Your task to perform on an android device: Open location settings Image 0: 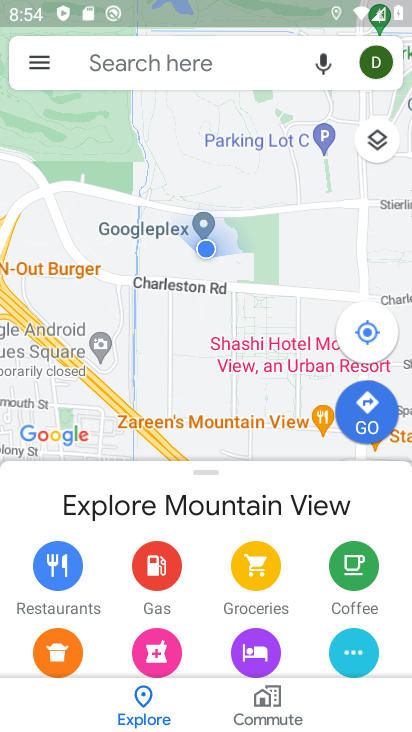
Step 0: press home button
Your task to perform on an android device: Open location settings Image 1: 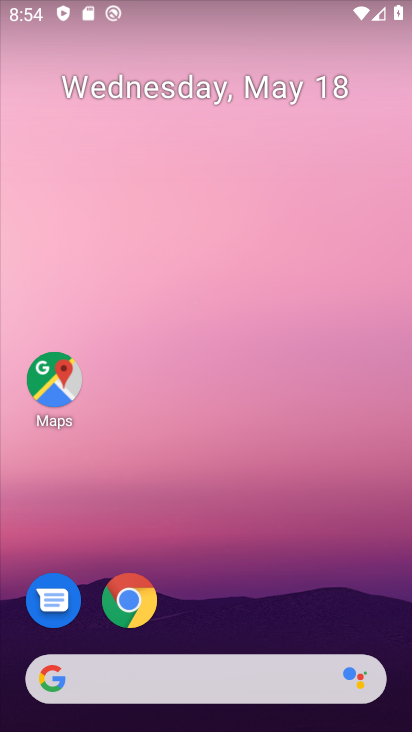
Step 1: drag from (35, 554) to (272, 106)
Your task to perform on an android device: Open location settings Image 2: 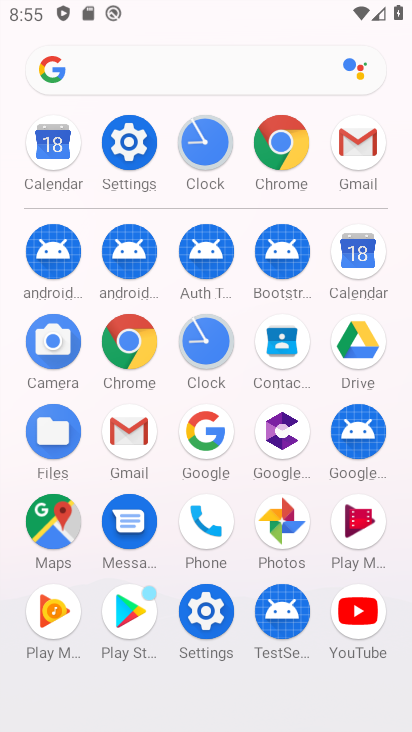
Step 2: click (148, 142)
Your task to perform on an android device: Open location settings Image 3: 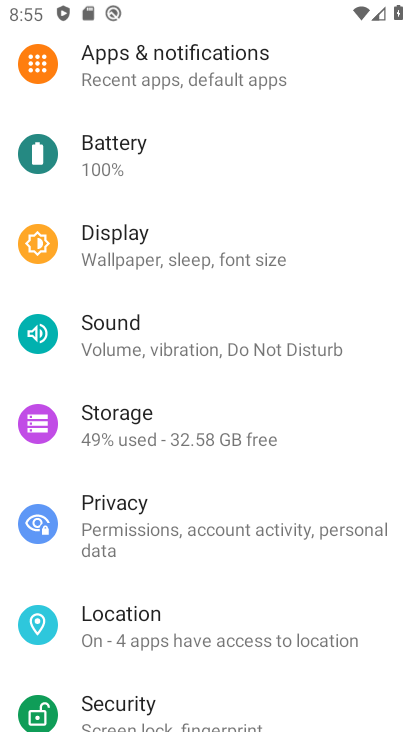
Step 3: click (179, 628)
Your task to perform on an android device: Open location settings Image 4: 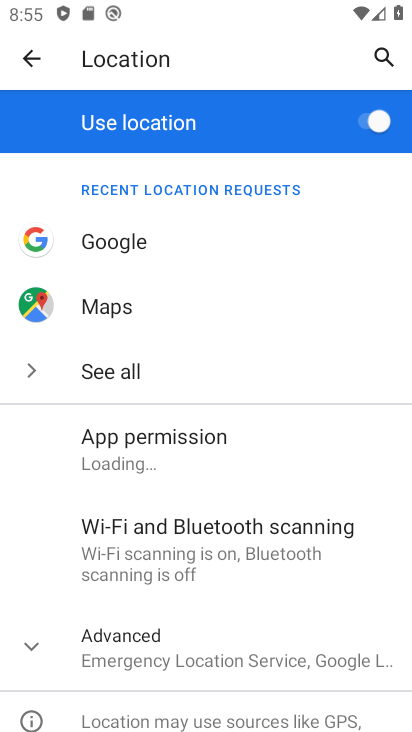
Step 4: task complete